Your task to perform on an android device: search for starred emails in the gmail app Image 0: 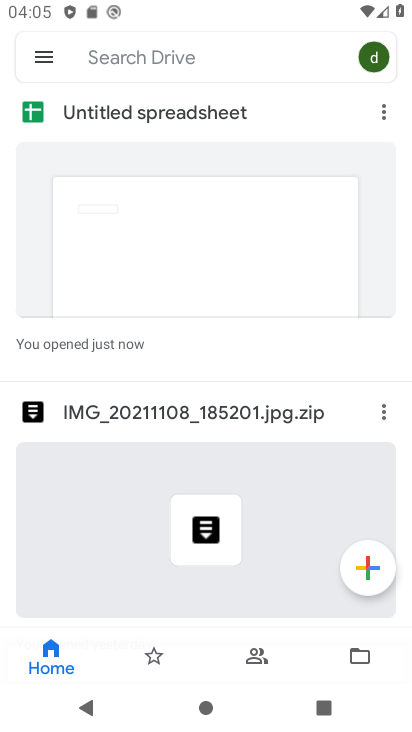
Step 0: press back button
Your task to perform on an android device: search for starred emails in the gmail app Image 1: 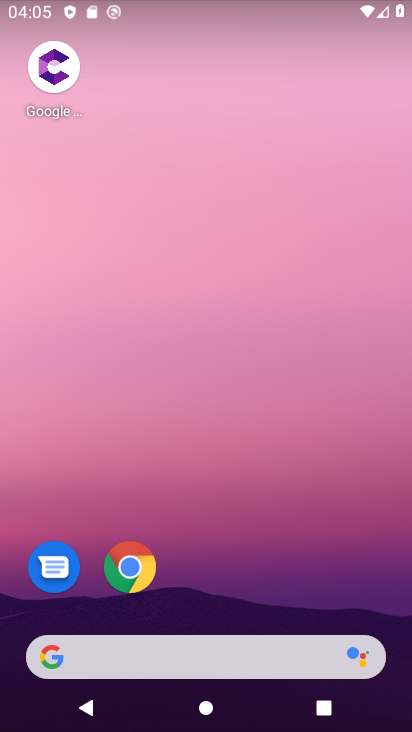
Step 1: drag from (241, 589) to (213, 211)
Your task to perform on an android device: search for starred emails in the gmail app Image 2: 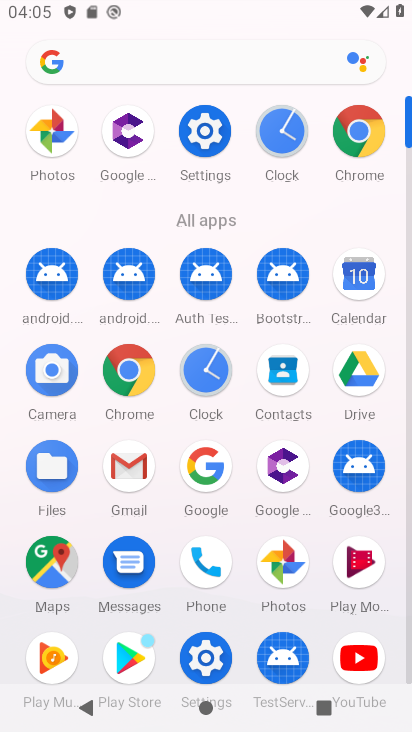
Step 2: click (126, 469)
Your task to perform on an android device: search for starred emails in the gmail app Image 3: 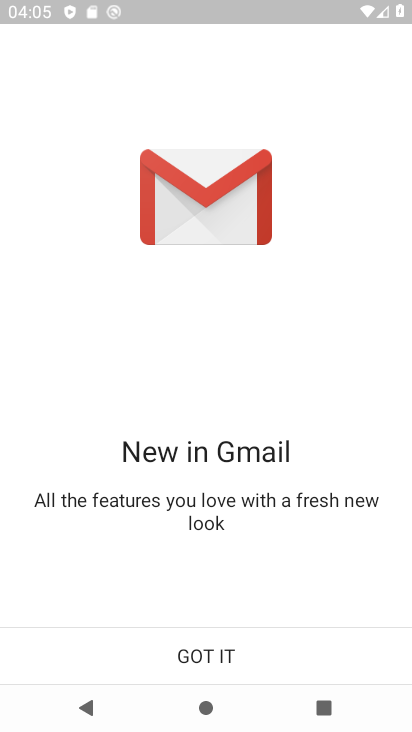
Step 3: click (193, 652)
Your task to perform on an android device: search for starred emails in the gmail app Image 4: 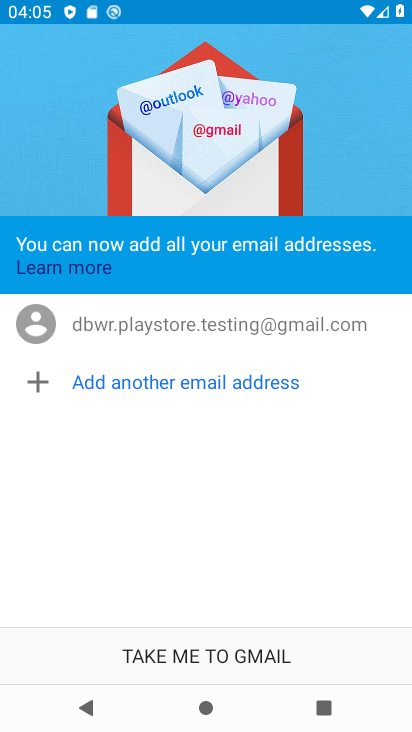
Step 4: click (195, 646)
Your task to perform on an android device: search for starred emails in the gmail app Image 5: 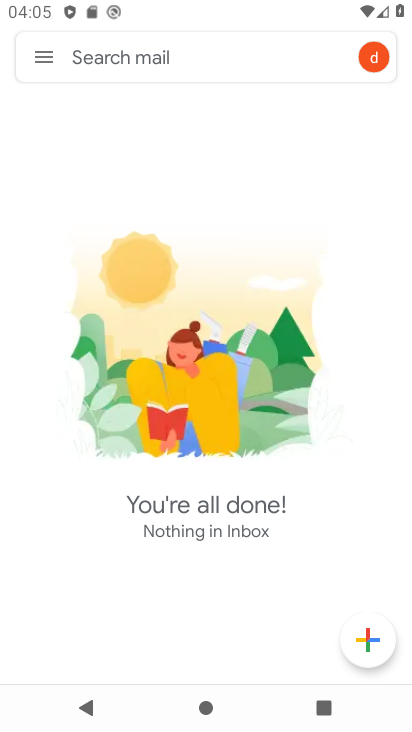
Step 5: click (34, 58)
Your task to perform on an android device: search for starred emails in the gmail app Image 6: 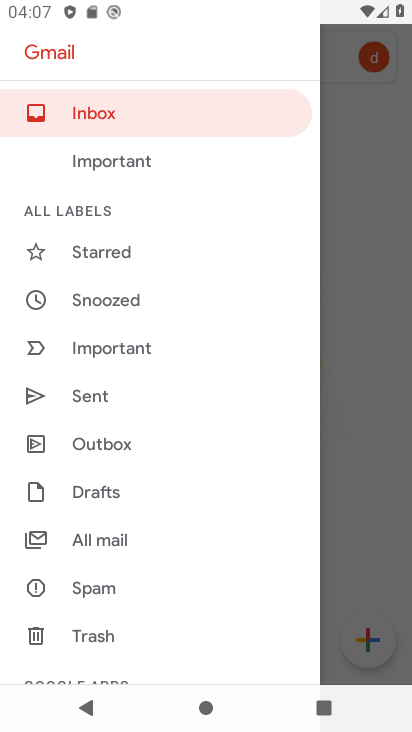
Step 6: click (122, 307)
Your task to perform on an android device: search for starred emails in the gmail app Image 7: 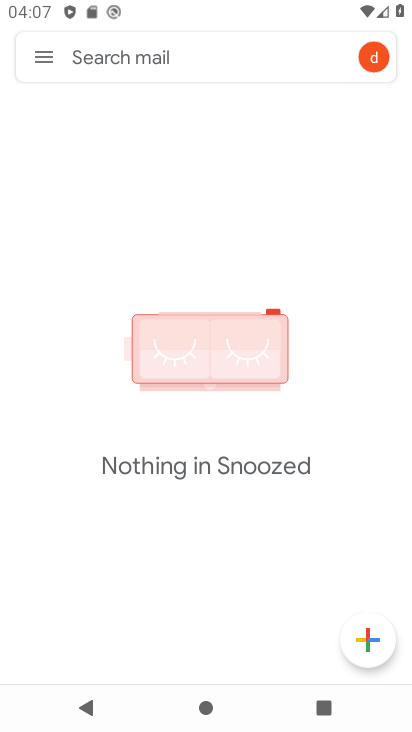
Step 7: click (42, 69)
Your task to perform on an android device: search for starred emails in the gmail app Image 8: 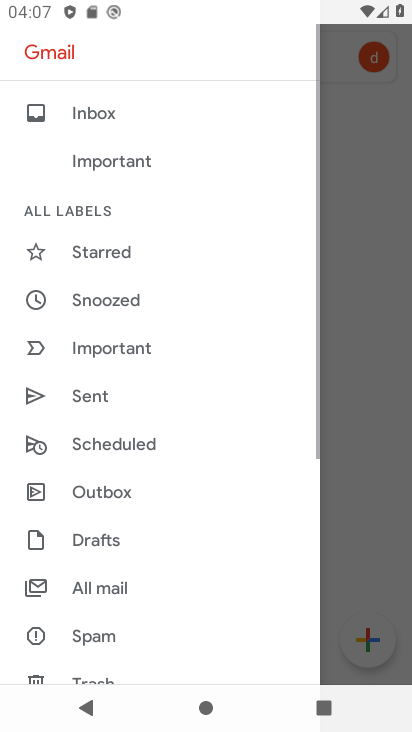
Step 8: click (108, 238)
Your task to perform on an android device: search for starred emails in the gmail app Image 9: 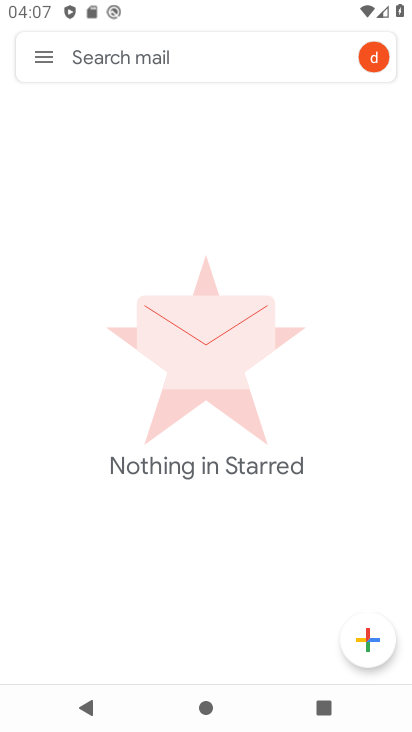
Step 9: task complete